Your task to perform on an android device: Go to settings Image 0: 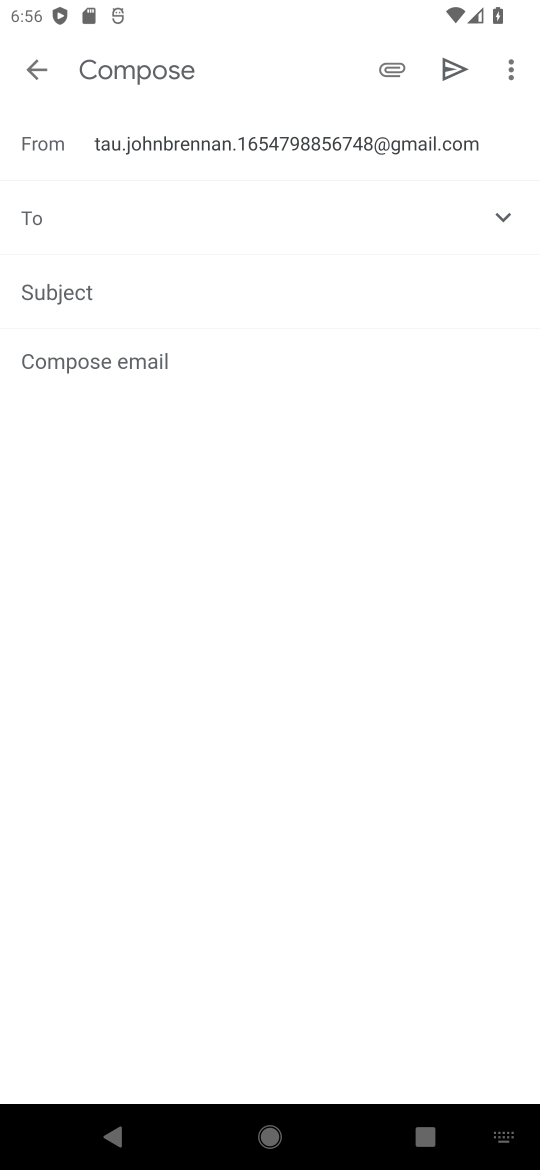
Step 0: press home button
Your task to perform on an android device: Go to settings Image 1: 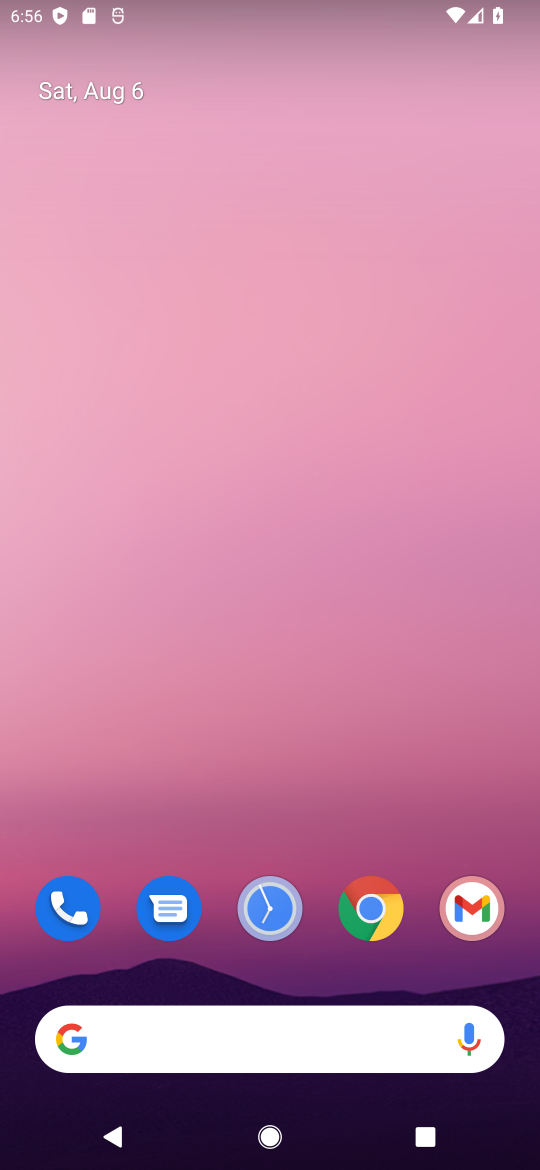
Step 1: drag from (314, 861) to (208, 19)
Your task to perform on an android device: Go to settings Image 2: 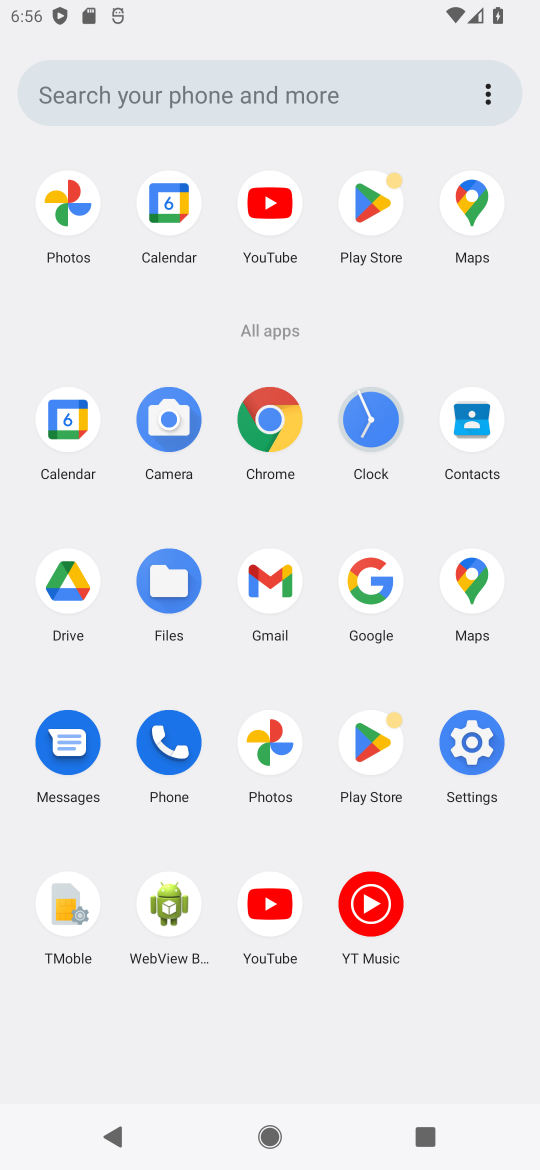
Step 2: click (464, 747)
Your task to perform on an android device: Go to settings Image 3: 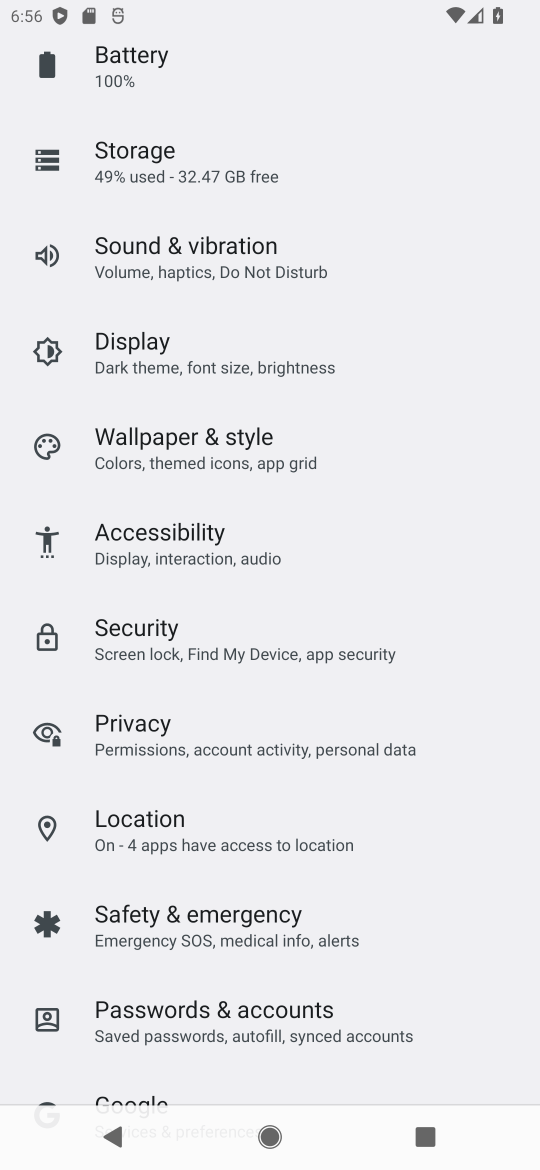
Step 3: task complete